Your task to perform on an android device: Play the last video I watched on Youtube Image 0: 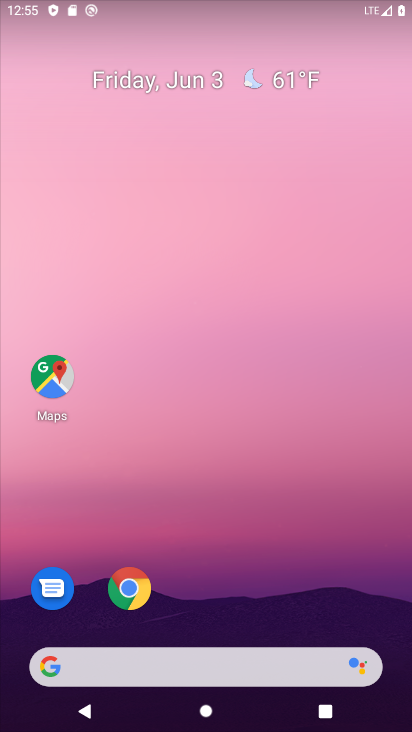
Step 0: drag from (21, 618) to (262, 61)
Your task to perform on an android device: Play the last video I watched on Youtube Image 1: 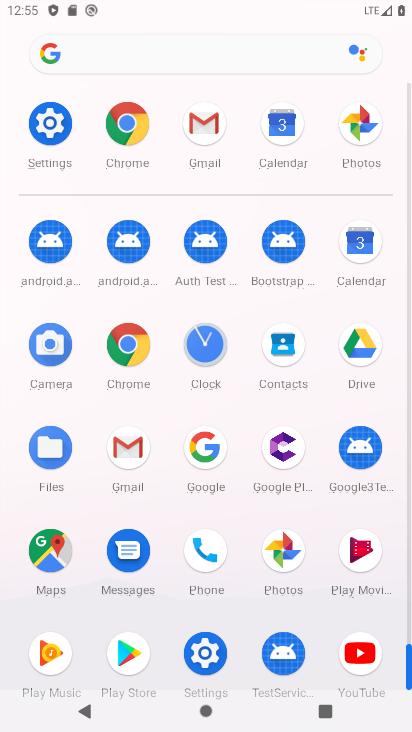
Step 1: click (347, 668)
Your task to perform on an android device: Play the last video I watched on Youtube Image 2: 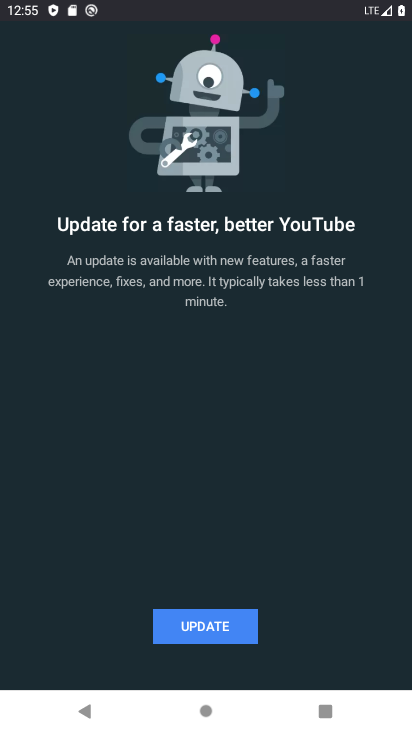
Step 2: task complete